Your task to perform on an android device: Open Yahoo.com Image 0: 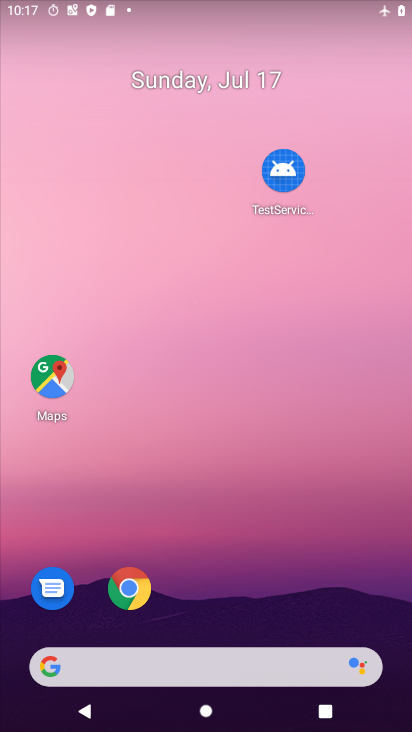
Step 0: drag from (229, 685) to (287, 216)
Your task to perform on an android device: Open Yahoo.com Image 1: 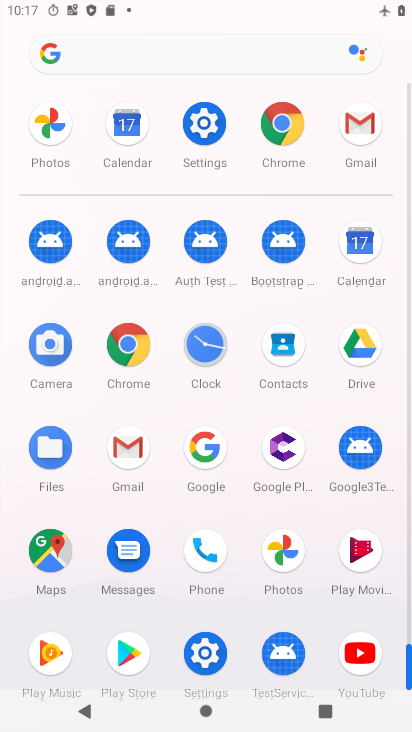
Step 1: click (289, 141)
Your task to perform on an android device: Open Yahoo.com Image 2: 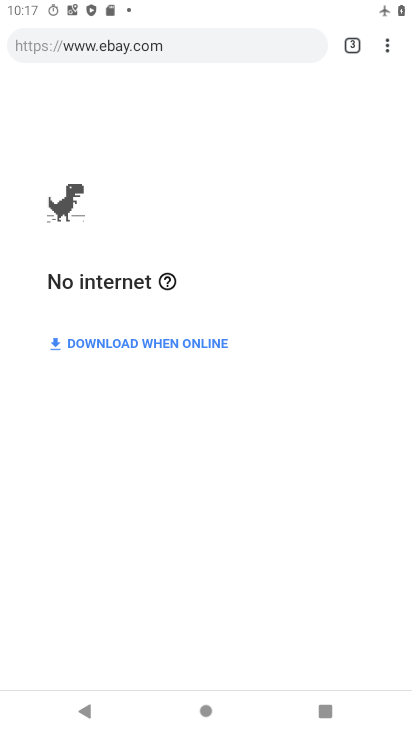
Step 2: click (200, 43)
Your task to perform on an android device: Open Yahoo.com Image 3: 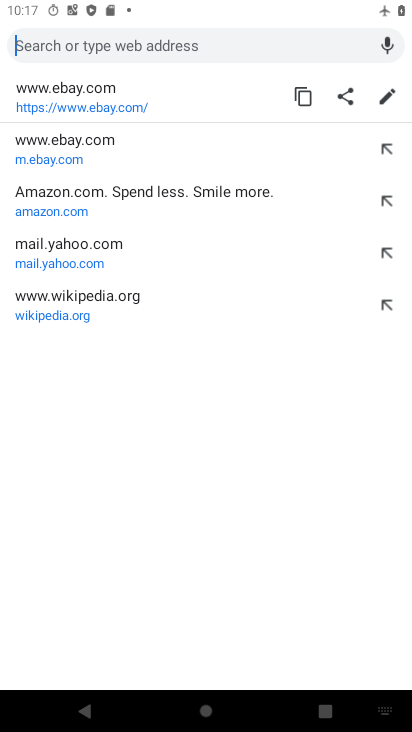
Step 3: click (114, 247)
Your task to perform on an android device: Open Yahoo.com Image 4: 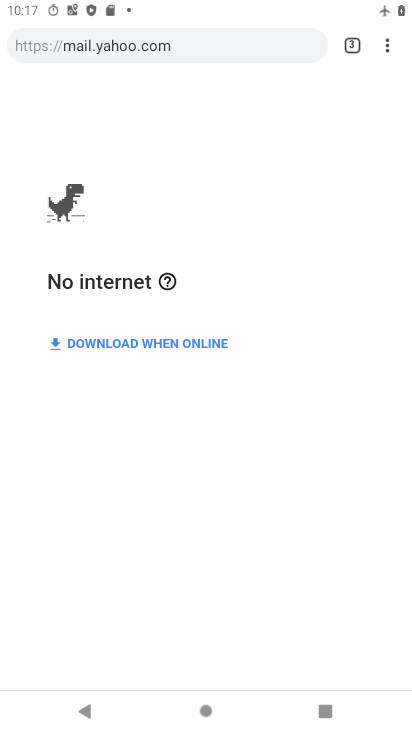
Step 4: task complete